Your task to perform on an android device: show emergency info Image 0: 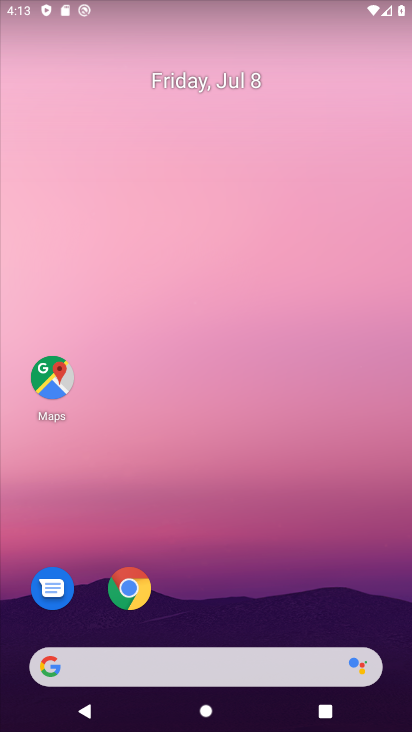
Step 0: drag from (268, 523) to (318, 103)
Your task to perform on an android device: show emergency info Image 1: 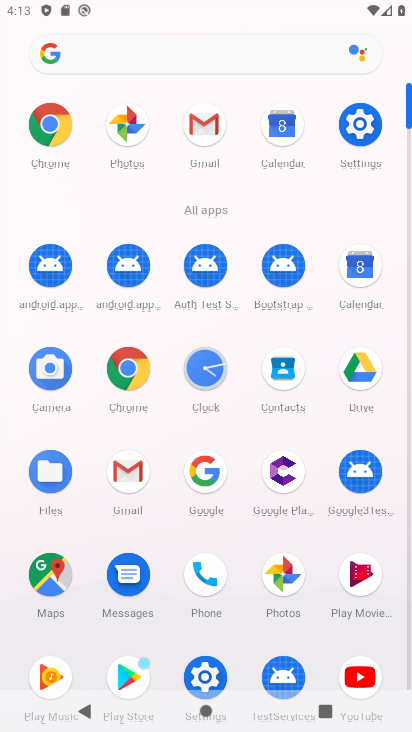
Step 1: click (355, 137)
Your task to perform on an android device: show emergency info Image 2: 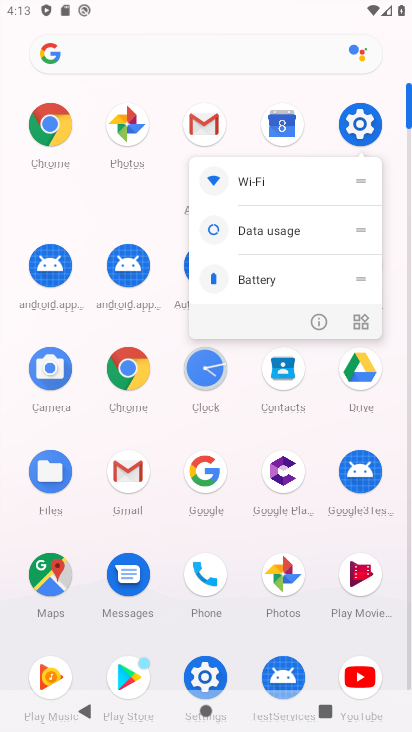
Step 2: click (363, 132)
Your task to perform on an android device: show emergency info Image 3: 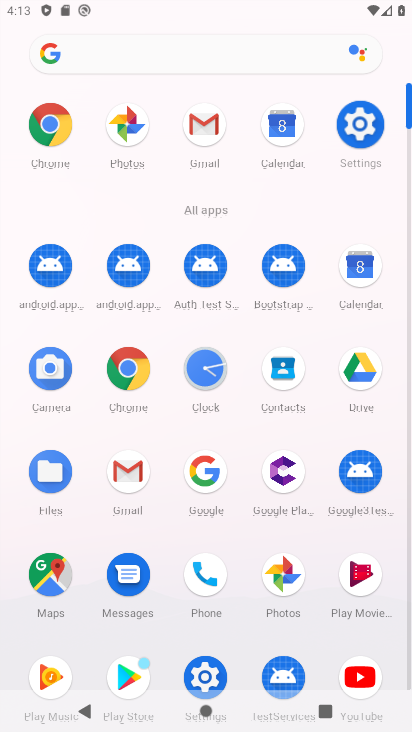
Step 3: click (368, 152)
Your task to perform on an android device: show emergency info Image 4: 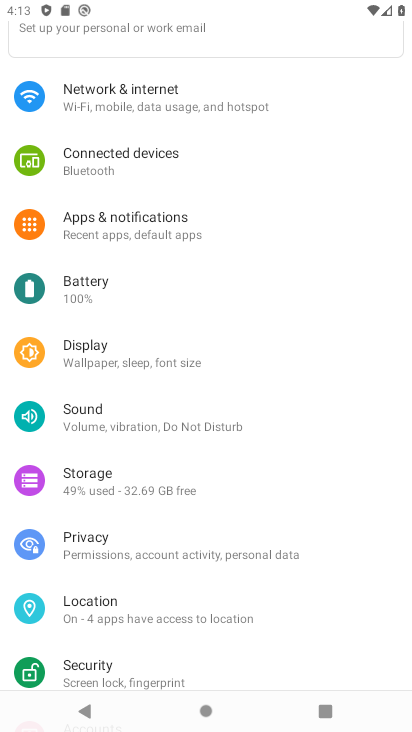
Step 4: drag from (127, 473) to (131, 70)
Your task to perform on an android device: show emergency info Image 5: 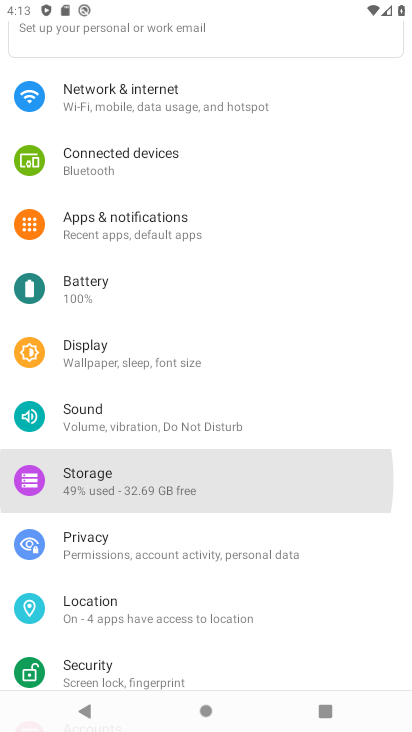
Step 5: click (161, 100)
Your task to perform on an android device: show emergency info Image 6: 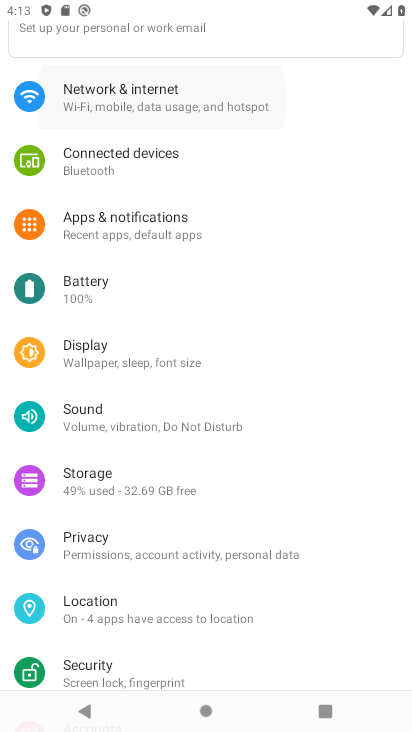
Step 6: drag from (220, 325) to (220, 55)
Your task to perform on an android device: show emergency info Image 7: 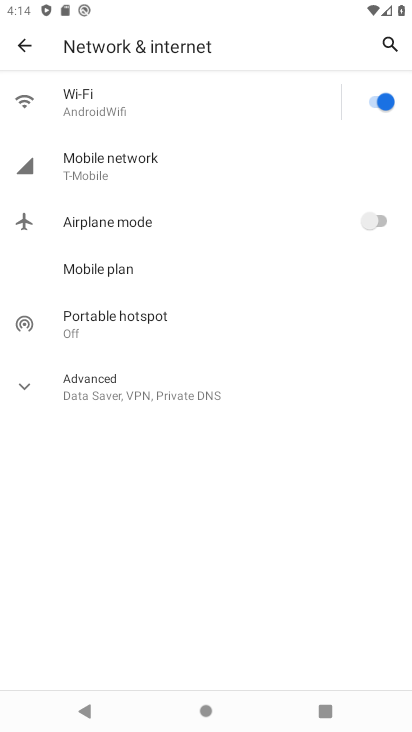
Step 7: click (25, 38)
Your task to perform on an android device: show emergency info Image 8: 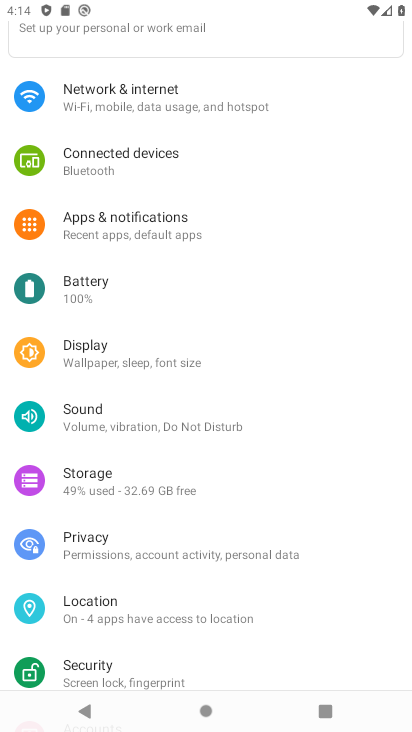
Step 8: drag from (164, 548) to (115, 58)
Your task to perform on an android device: show emergency info Image 9: 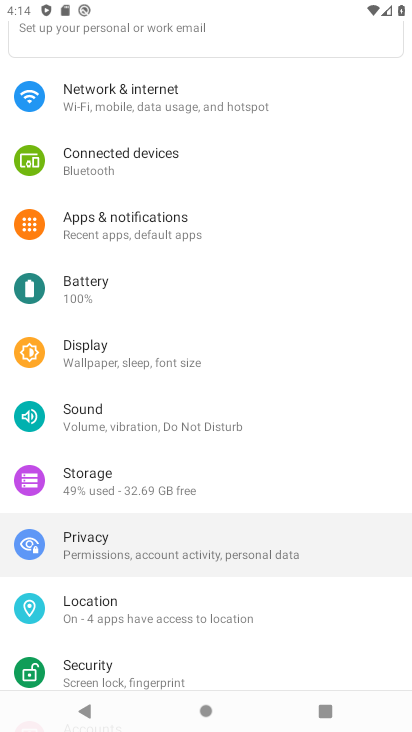
Step 9: drag from (157, 220) to (220, 225)
Your task to perform on an android device: show emergency info Image 10: 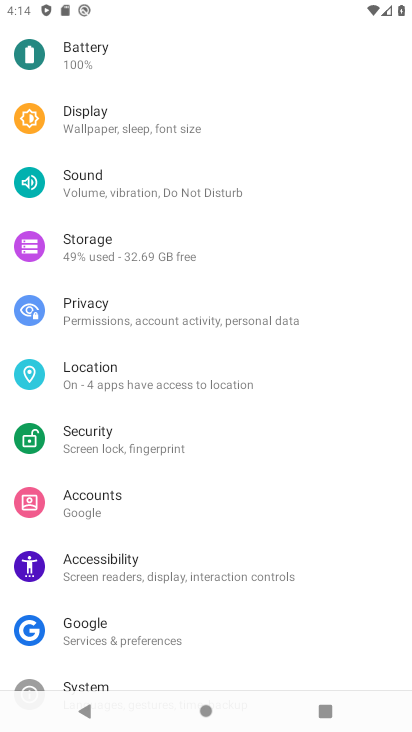
Step 10: drag from (135, 577) to (105, 201)
Your task to perform on an android device: show emergency info Image 11: 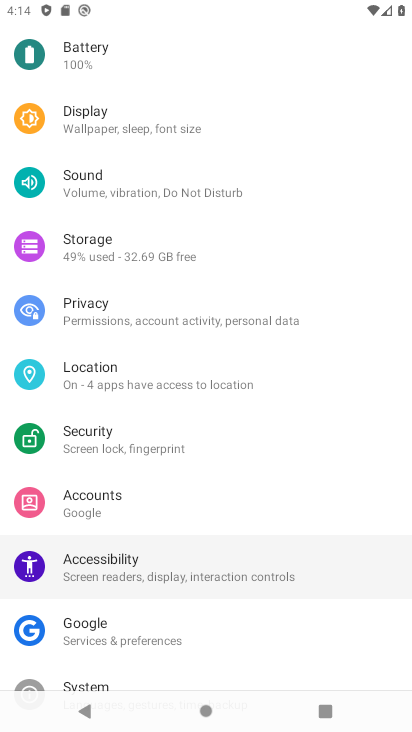
Step 11: drag from (150, 471) to (127, 63)
Your task to perform on an android device: show emergency info Image 12: 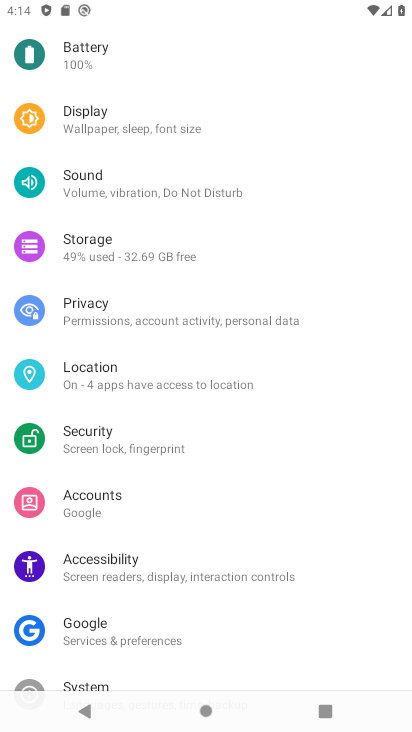
Step 12: drag from (211, 467) to (255, 209)
Your task to perform on an android device: show emergency info Image 13: 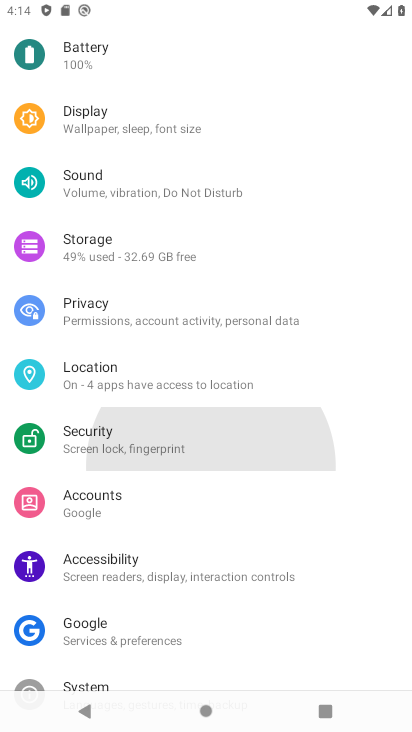
Step 13: drag from (169, 574) to (181, 241)
Your task to perform on an android device: show emergency info Image 14: 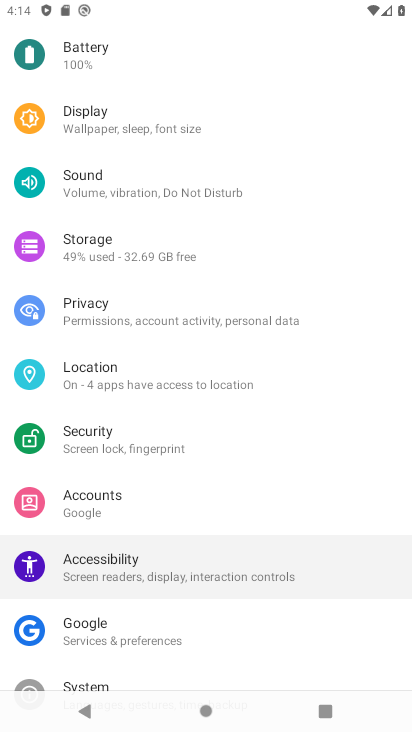
Step 14: drag from (148, 479) to (144, 282)
Your task to perform on an android device: show emergency info Image 15: 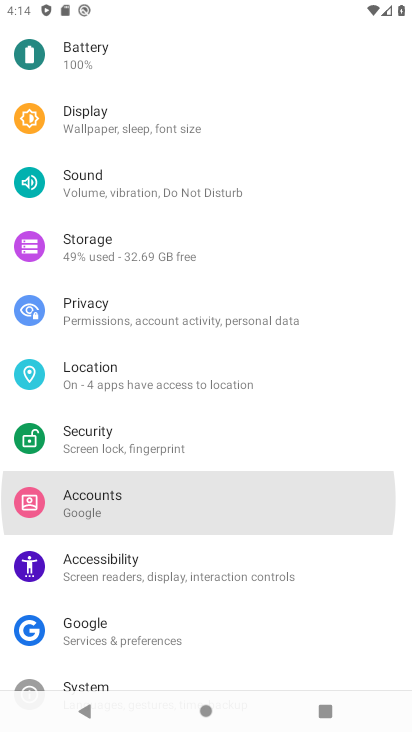
Step 15: click (135, 241)
Your task to perform on an android device: show emergency info Image 16: 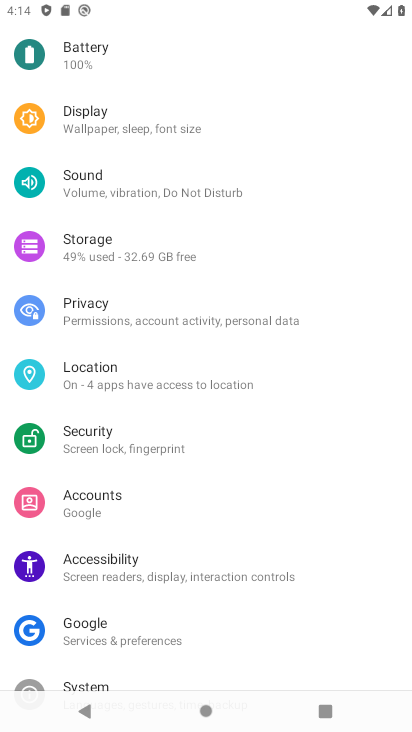
Step 16: drag from (114, 550) to (96, 277)
Your task to perform on an android device: show emergency info Image 17: 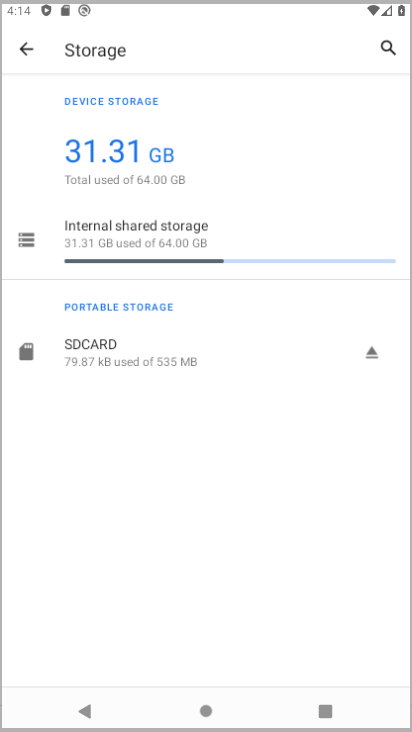
Step 17: drag from (78, 596) to (116, 281)
Your task to perform on an android device: show emergency info Image 18: 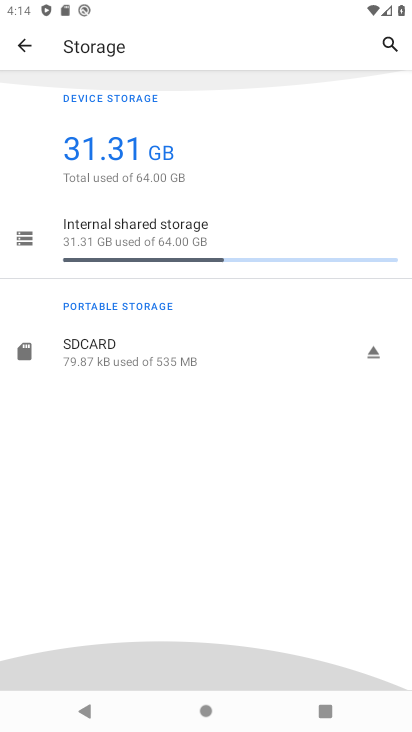
Step 18: drag from (170, 430) to (226, 25)
Your task to perform on an android device: show emergency info Image 19: 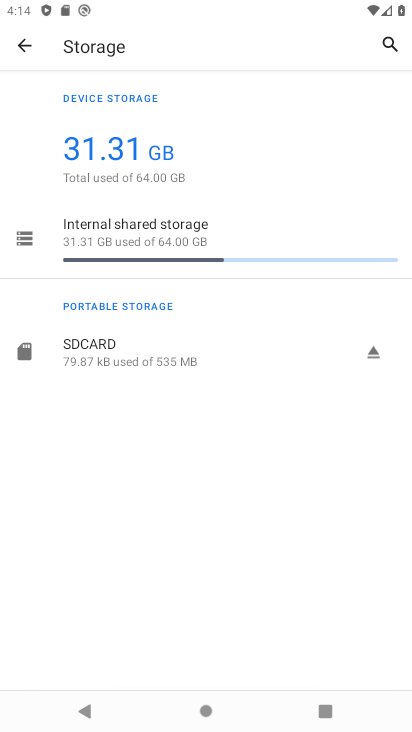
Step 19: click (30, 51)
Your task to perform on an android device: show emergency info Image 20: 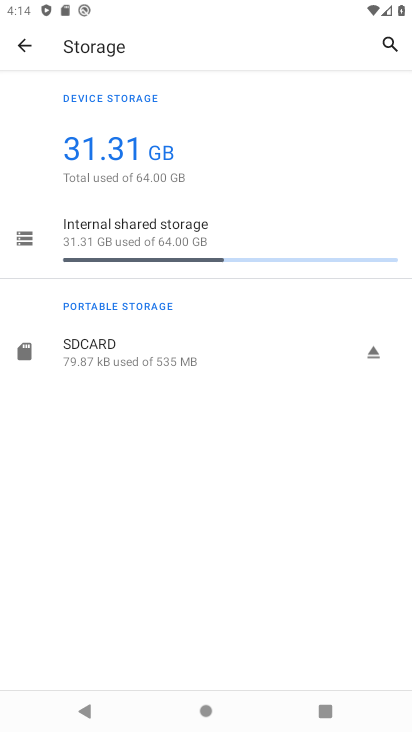
Step 20: click (32, 45)
Your task to perform on an android device: show emergency info Image 21: 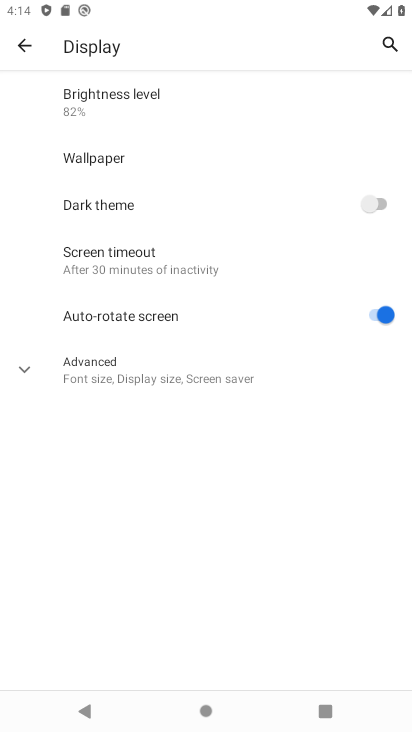
Step 21: drag from (89, 113) to (89, 79)
Your task to perform on an android device: show emergency info Image 22: 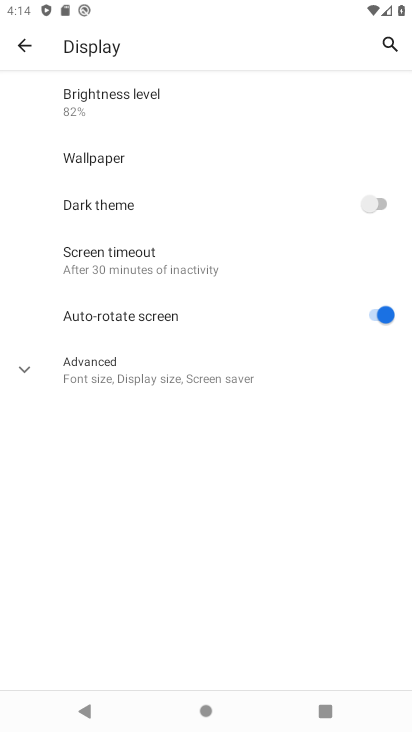
Step 22: click (36, 48)
Your task to perform on an android device: show emergency info Image 23: 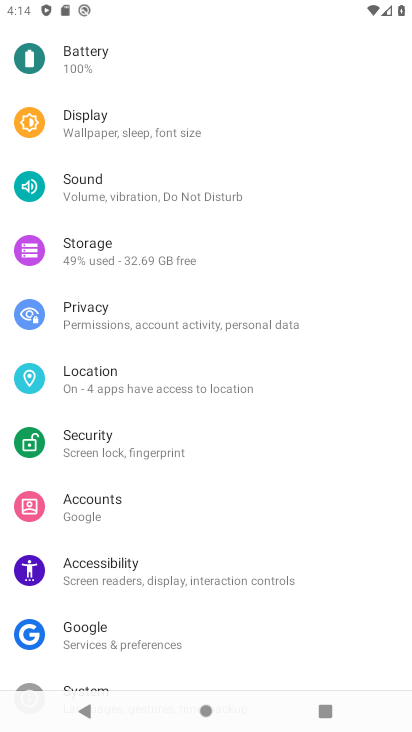
Step 23: drag from (145, 644) to (127, 332)
Your task to perform on an android device: show emergency info Image 24: 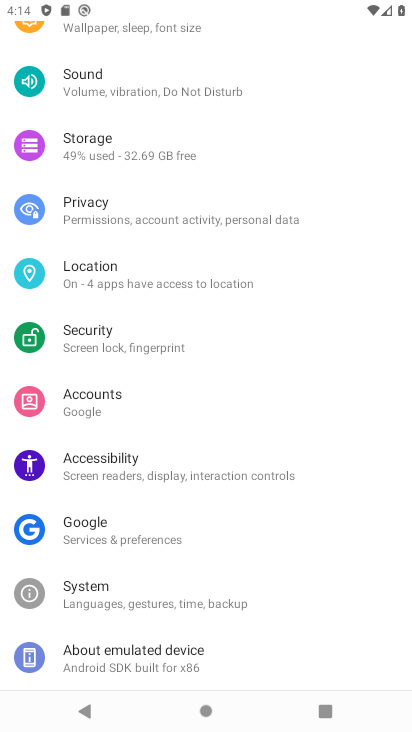
Step 24: click (126, 647)
Your task to perform on an android device: show emergency info Image 25: 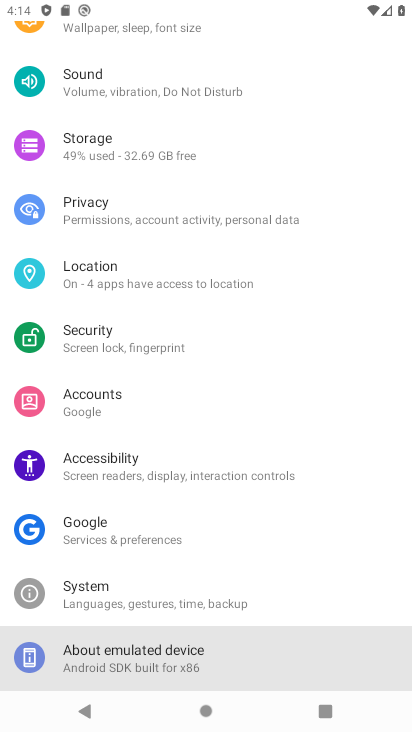
Step 25: click (123, 657)
Your task to perform on an android device: show emergency info Image 26: 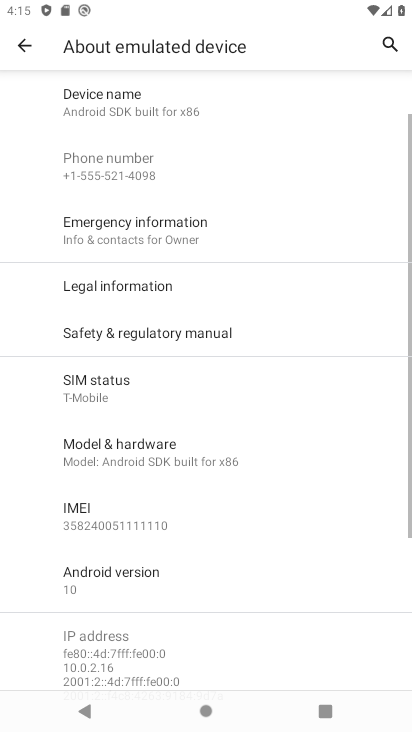
Step 26: click (264, 129)
Your task to perform on an android device: show emergency info Image 27: 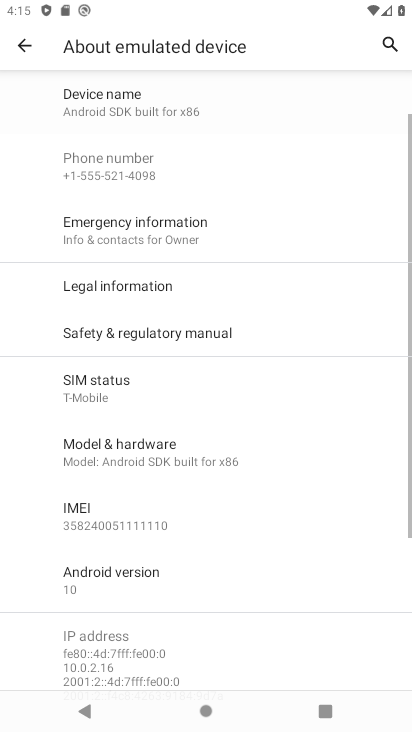
Step 27: task complete